Your task to perform on an android device: Open calendar and show me the second week of next month Image 0: 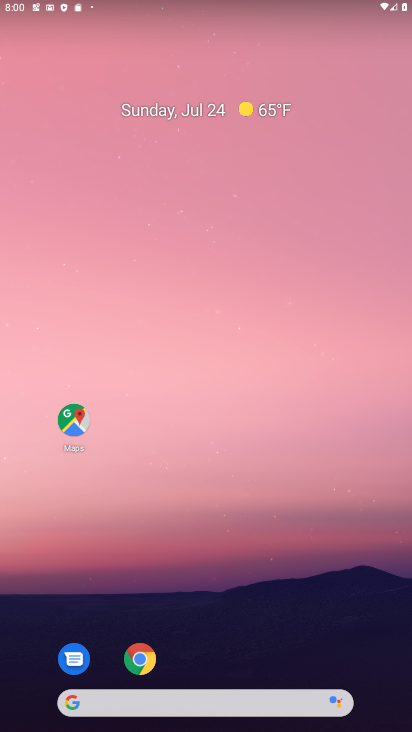
Step 0: drag from (255, 666) to (315, 11)
Your task to perform on an android device: Open calendar and show me the second week of next month Image 1: 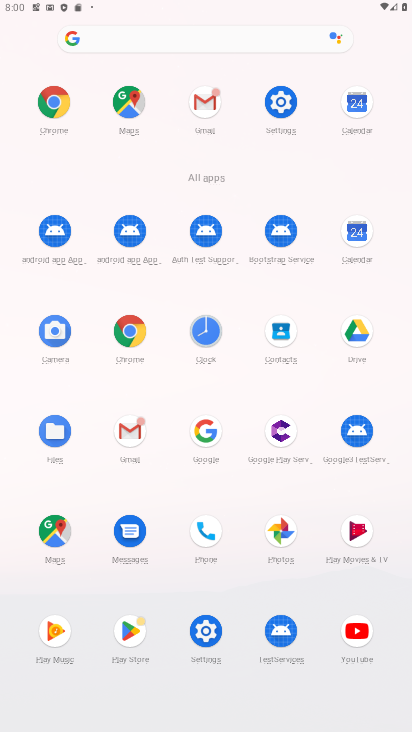
Step 1: click (364, 101)
Your task to perform on an android device: Open calendar and show me the second week of next month Image 2: 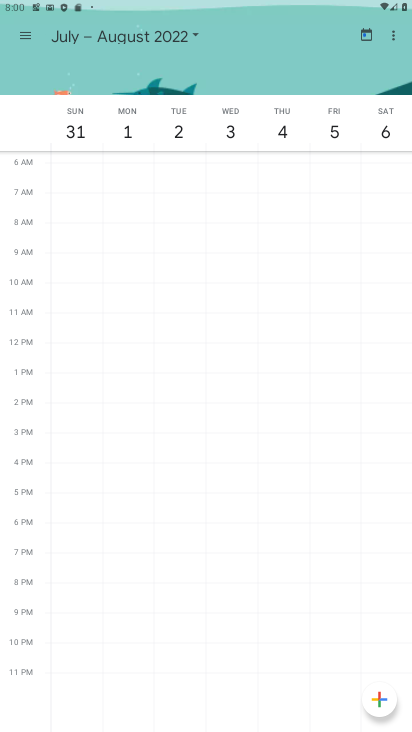
Step 2: task complete